Your task to perform on an android device: change timer sound Image 0: 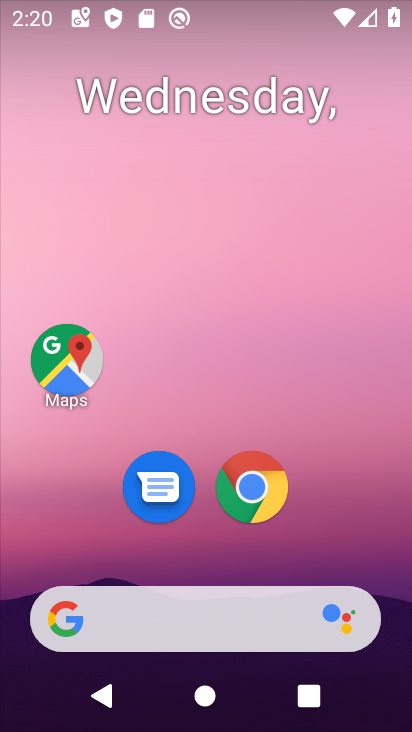
Step 0: drag from (364, 506) to (209, 56)
Your task to perform on an android device: change timer sound Image 1: 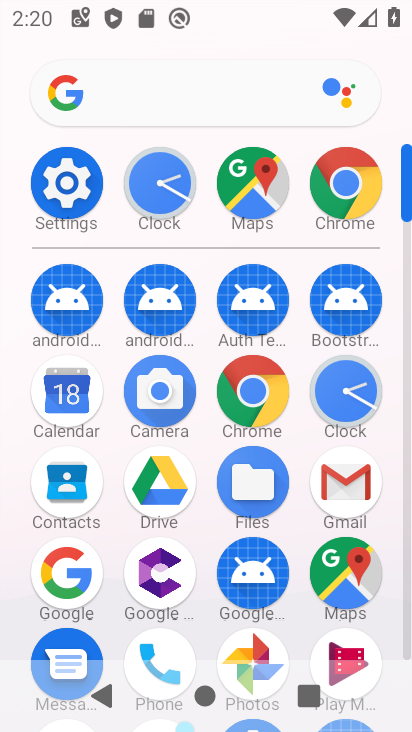
Step 1: click (162, 178)
Your task to perform on an android device: change timer sound Image 2: 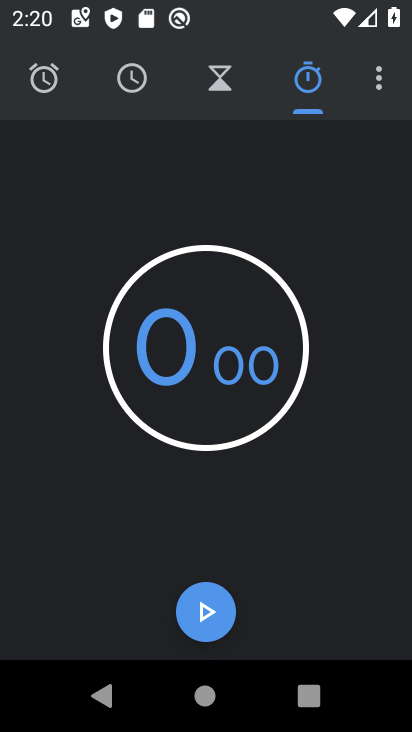
Step 2: click (374, 71)
Your task to perform on an android device: change timer sound Image 3: 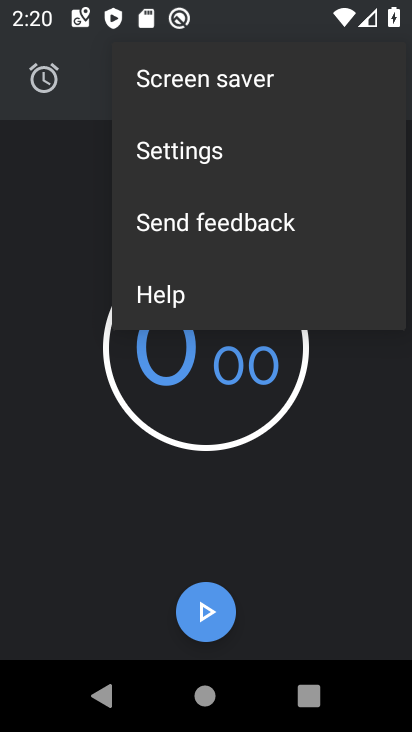
Step 3: click (197, 152)
Your task to perform on an android device: change timer sound Image 4: 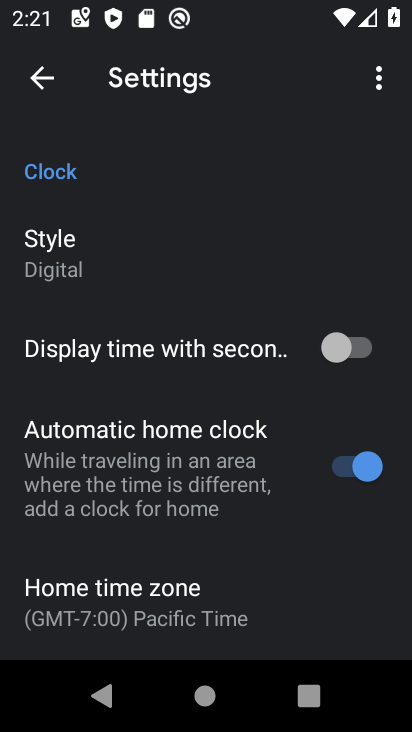
Step 4: drag from (321, 545) to (243, 224)
Your task to perform on an android device: change timer sound Image 5: 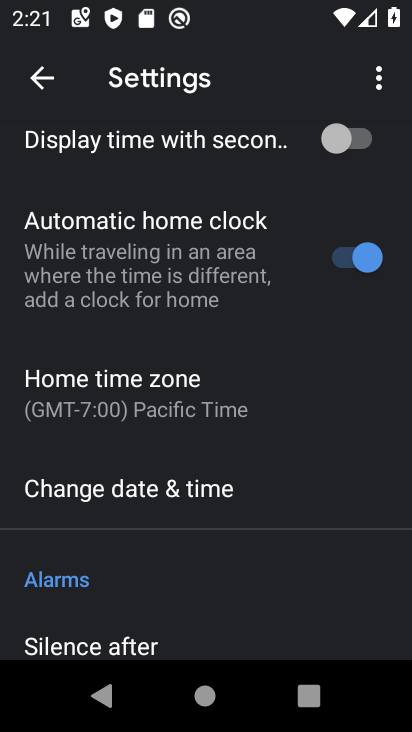
Step 5: drag from (254, 448) to (153, 101)
Your task to perform on an android device: change timer sound Image 6: 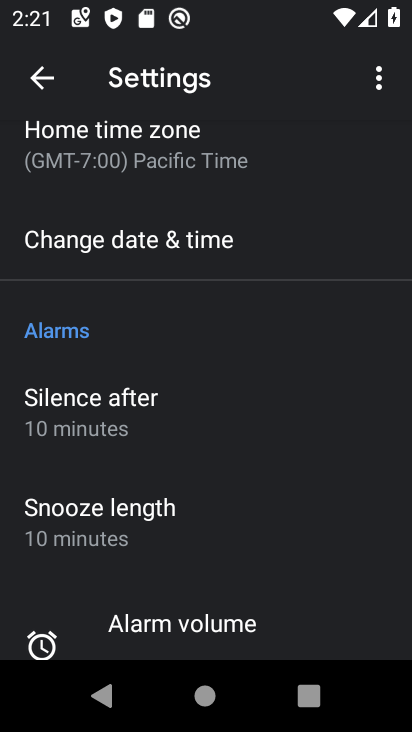
Step 6: drag from (222, 501) to (126, 164)
Your task to perform on an android device: change timer sound Image 7: 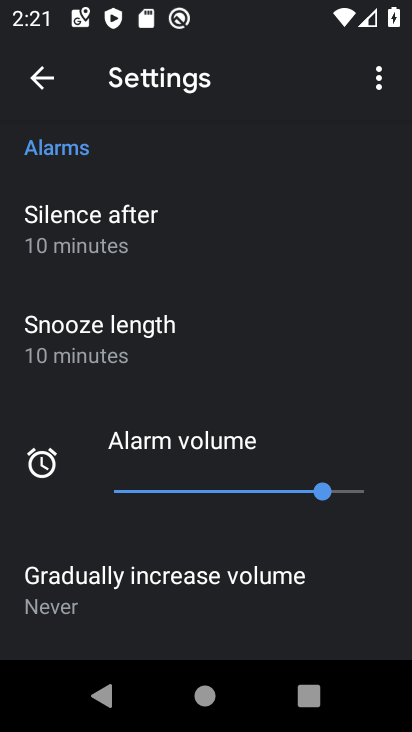
Step 7: drag from (217, 352) to (208, 106)
Your task to perform on an android device: change timer sound Image 8: 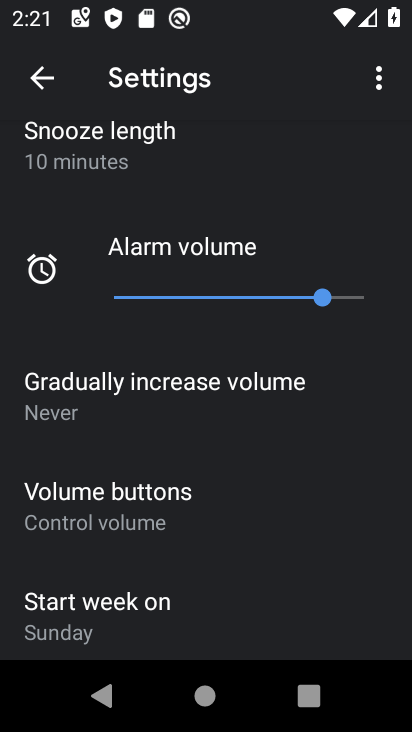
Step 8: drag from (241, 554) to (203, 235)
Your task to perform on an android device: change timer sound Image 9: 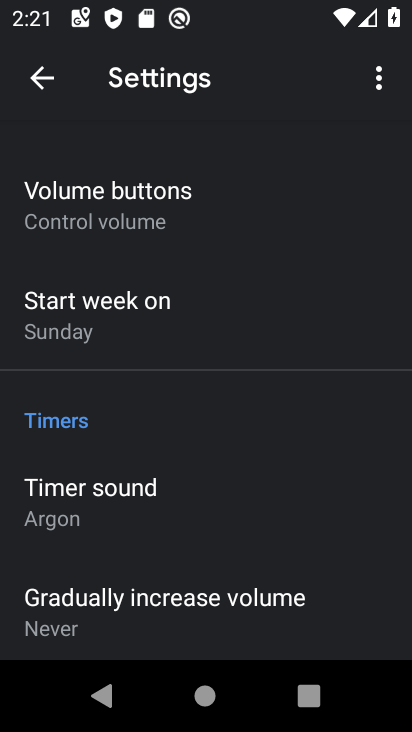
Step 9: click (132, 499)
Your task to perform on an android device: change timer sound Image 10: 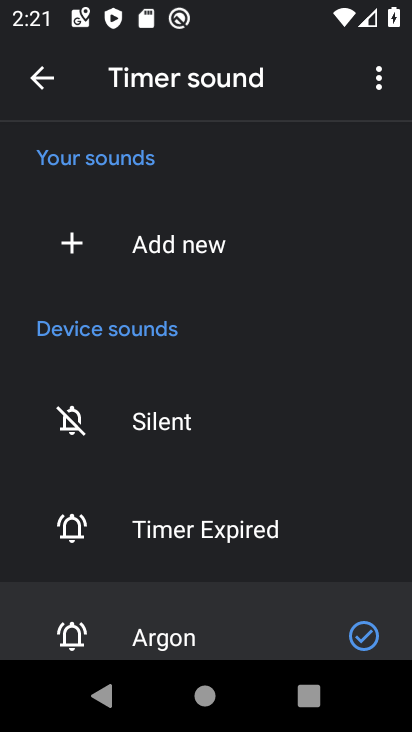
Step 10: click (197, 533)
Your task to perform on an android device: change timer sound Image 11: 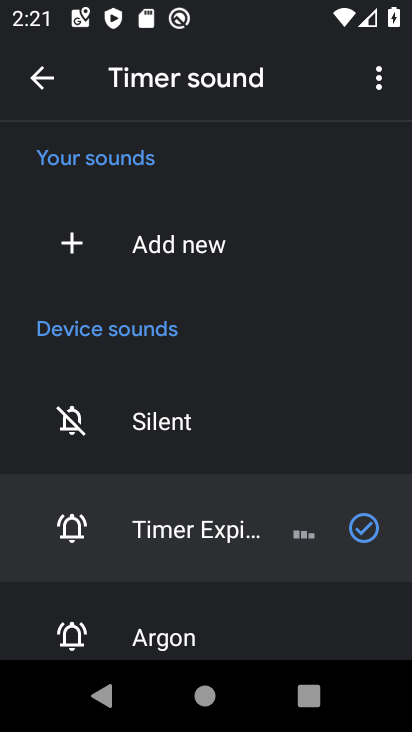
Step 11: task complete